Your task to perform on an android device: Open CNN.com Image 0: 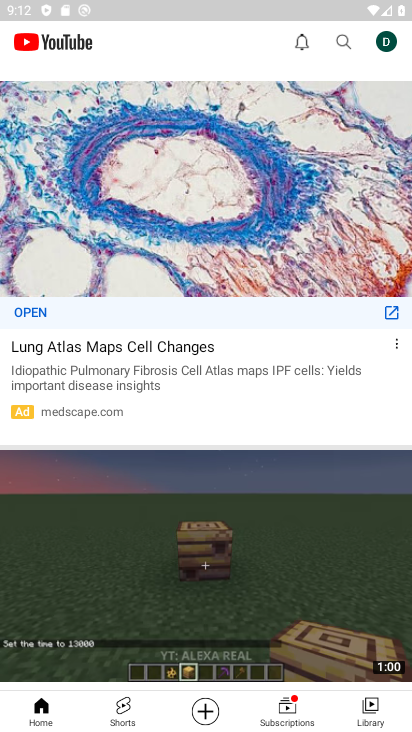
Step 0: press home button
Your task to perform on an android device: Open CNN.com Image 1: 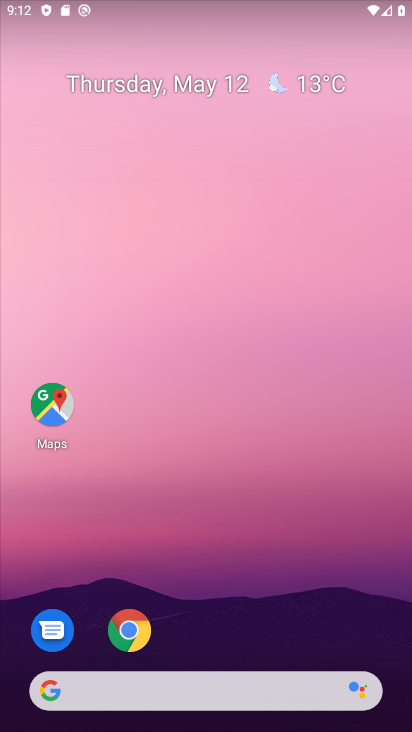
Step 1: click (123, 646)
Your task to perform on an android device: Open CNN.com Image 2: 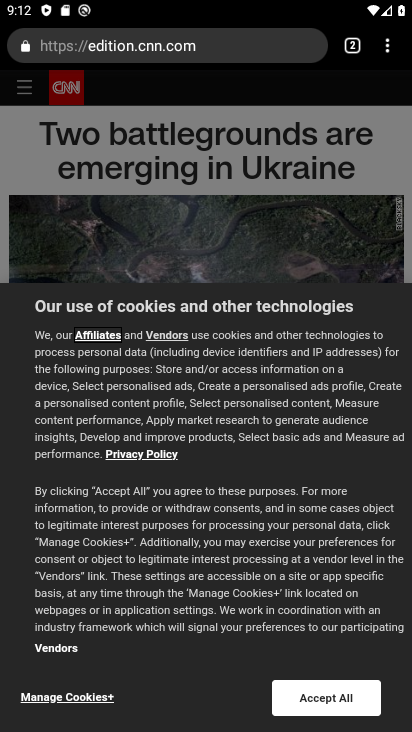
Step 2: task complete